Your task to perform on an android device: open a bookmark in the chrome app Image 0: 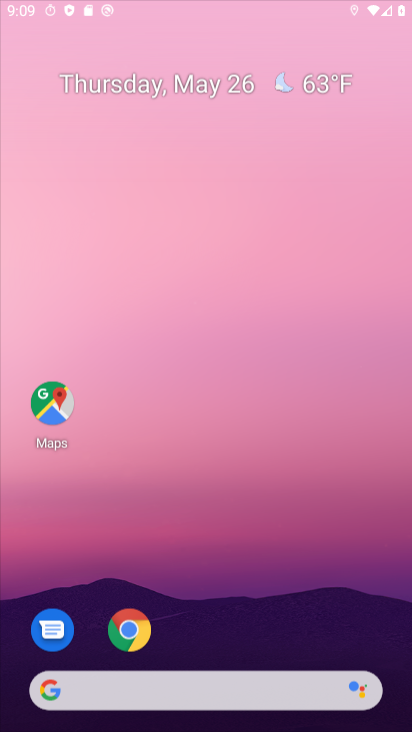
Step 0: drag from (167, 448) to (162, 148)
Your task to perform on an android device: open a bookmark in the chrome app Image 1: 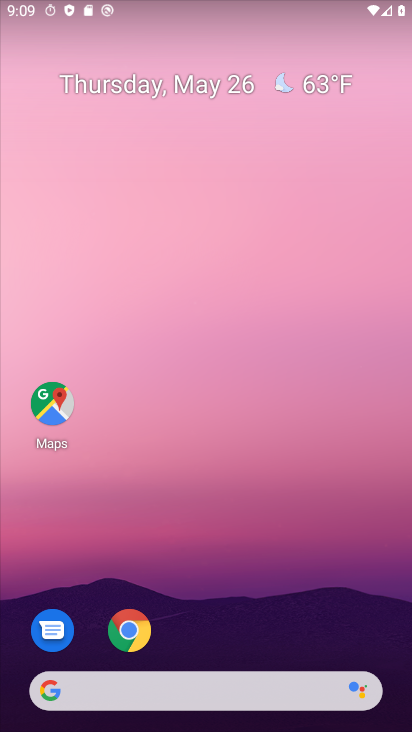
Step 1: press back button
Your task to perform on an android device: open a bookmark in the chrome app Image 2: 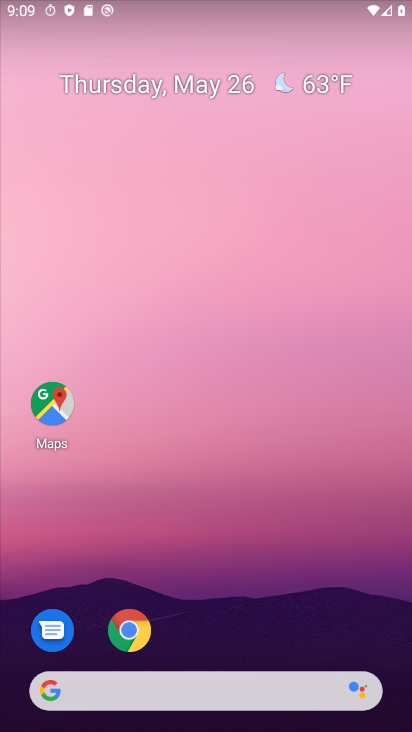
Step 2: drag from (266, 690) to (165, 57)
Your task to perform on an android device: open a bookmark in the chrome app Image 3: 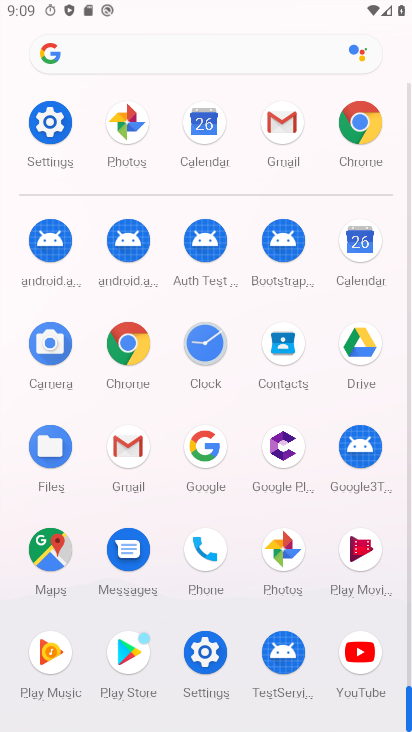
Step 3: click (349, 134)
Your task to perform on an android device: open a bookmark in the chrome app Image 4: 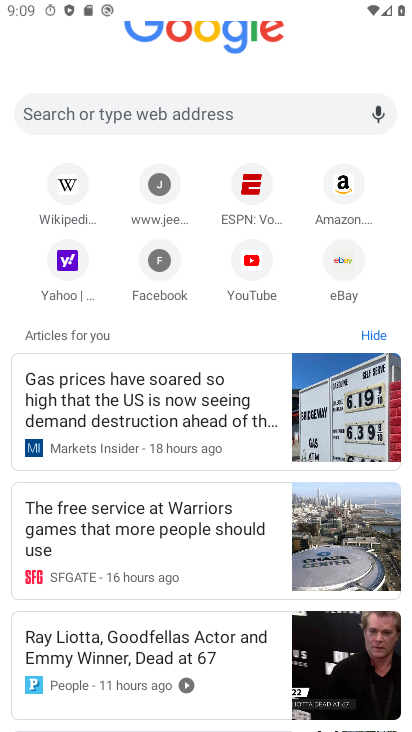
Step 4: task complete